Your task to perform on an android device: read, delete, or share a saved page in the chrome app Image 0: 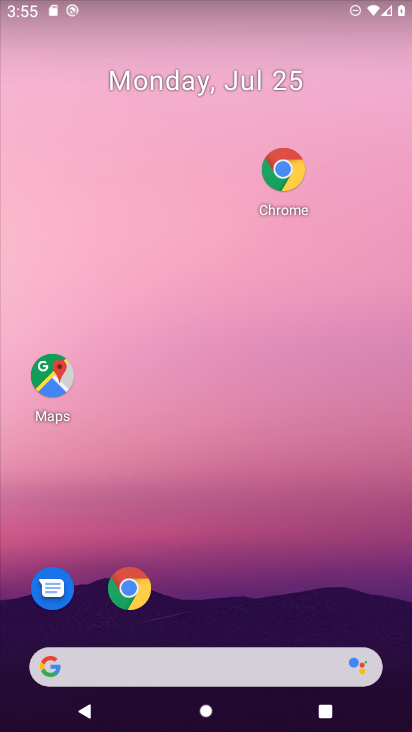
Step 0: drag from (260, 640) to (169, 227)
Your task to perform on an android device: read, delete, or share a saved page in the chrome app Image 1: 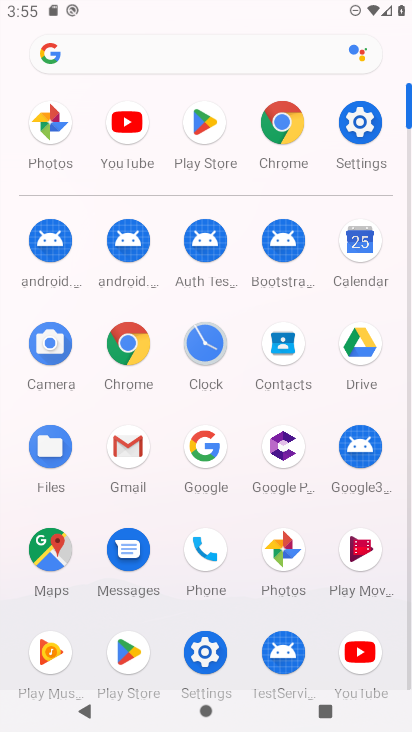
Step 1: click (280, 129)
Your task to perform on an android device: read, delete, or share a saved page in the chrome app Image 2: 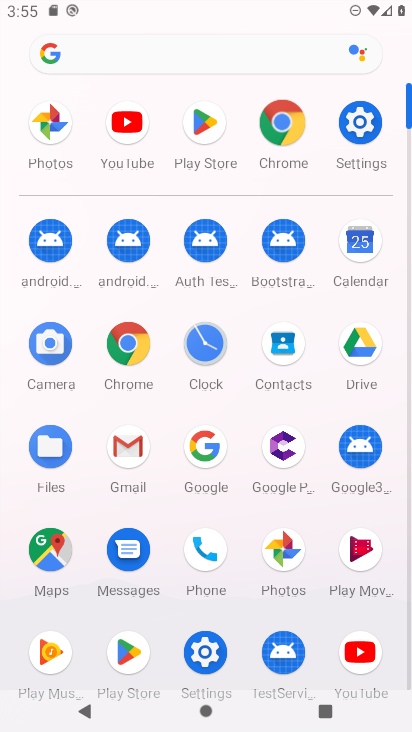
Step 2: click (273, 144)
Your task to perform on an android device: read, delete, or share a saved page in the chrome app Image 3: 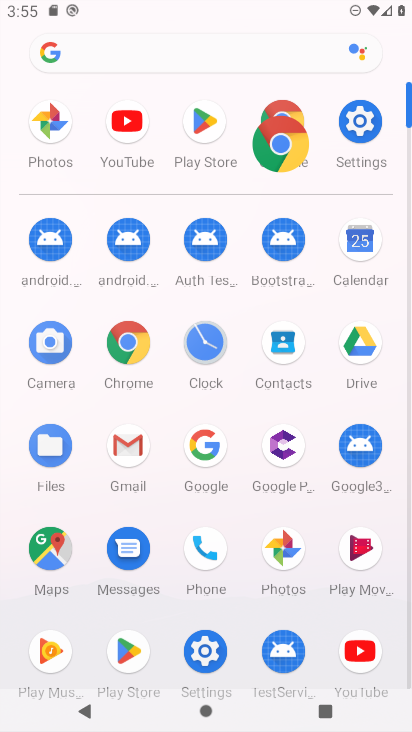
Step 3: click (265, 147)
Your task to perform on an android device: read, delete, or share a saved page in the chrome app Image 4: 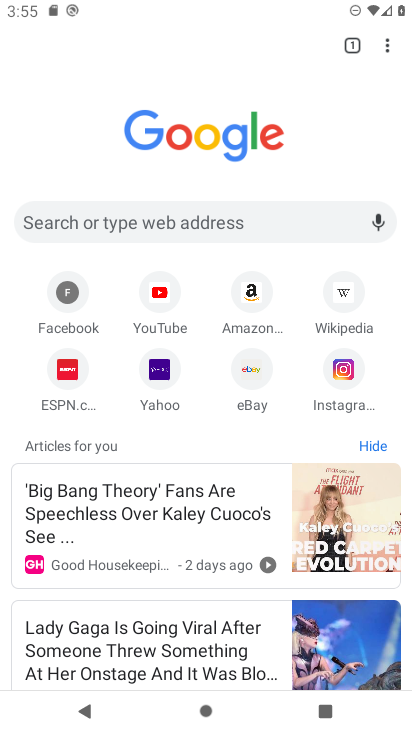
Step 4: drag from (385, 35) to (210, 304)
Your task to perform on an android device: read, delete, or share a saved page in the chrome app Image 5: 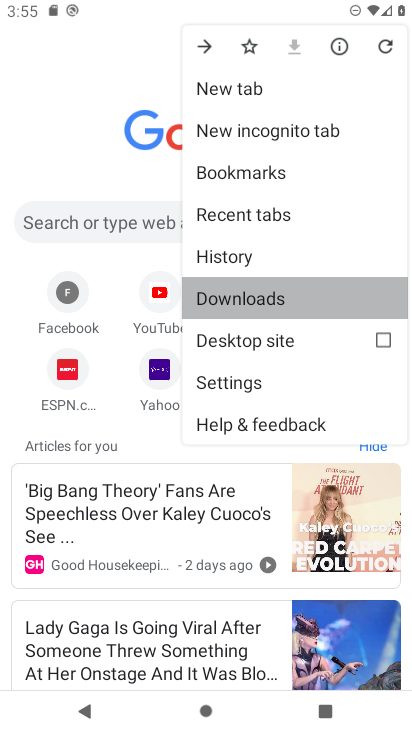
Step 5: click (215, 298)
Your task to perform on an android device: read, delete, or share a saved page in the chrome app Image 6: 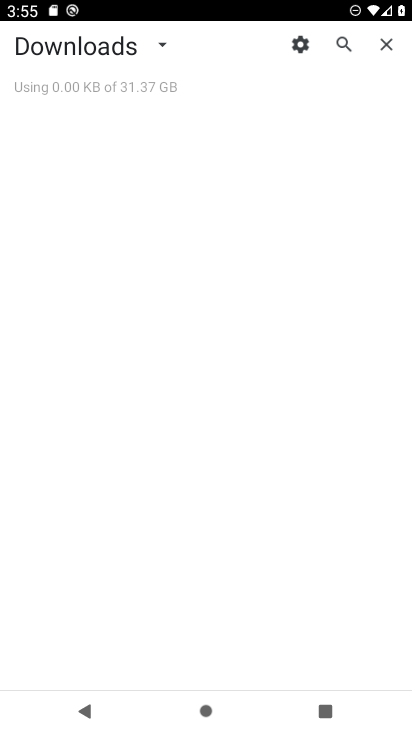
Step 6: click (175, 51)
Your task to perform on an android device: read, delete, or share a saved page in the chrome app Image 7: 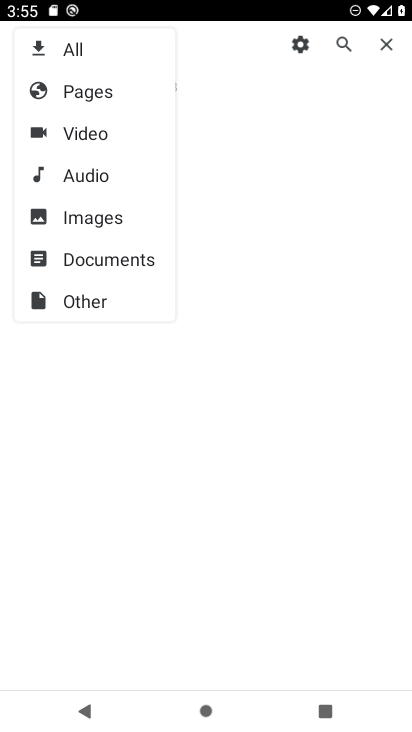
Step 7: click (120, 95)
Your task to perform on an android device: read, delete, or share a saved page in the chrome app Image 8: 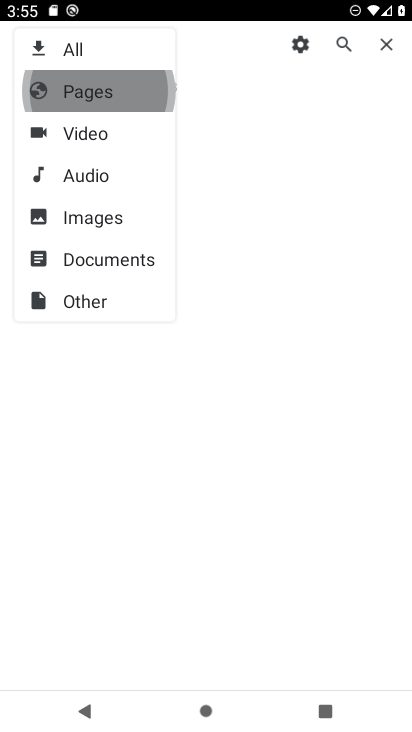
Step 8: click (120, 93)
Your task to perform on an android device: read, delete, or share a saved page in the chrome app Image 9: 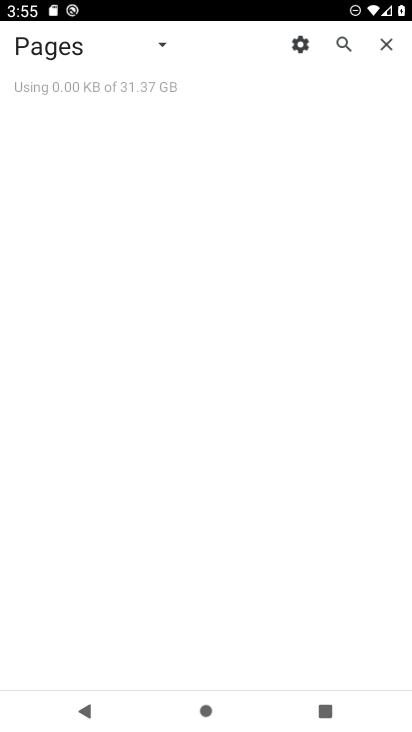
Step 9: task complete